Your task to perform on an android device: Open Amazon Image 0: 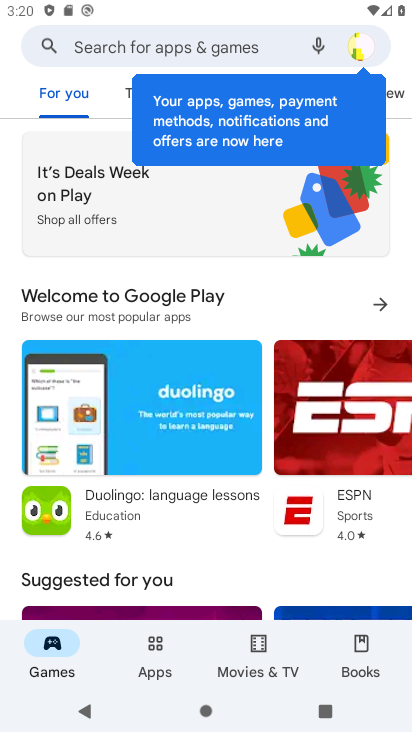
Step 0: press home button
Your task to perform on an android device: Open Amazon Image 1: 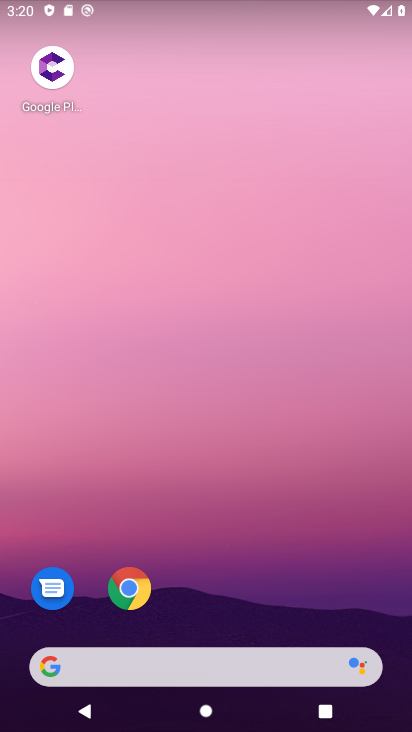
Step 1: click (112, 596)
Your task to perform on an android device: Open Amazon Image 2: 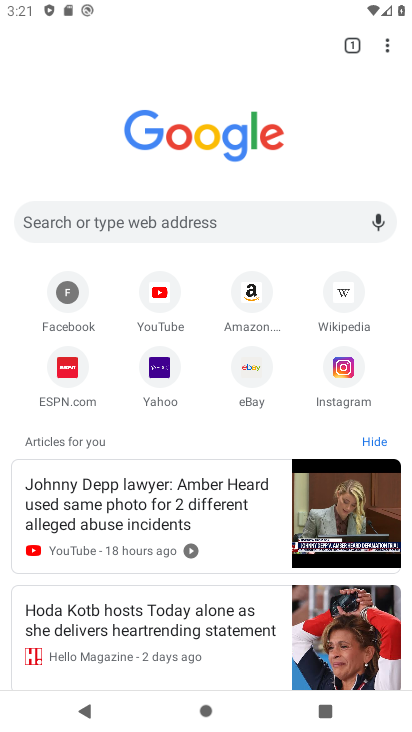
Step 2: click (256, 305)
Your task to perform on an android device: Open Amazon Image 3: 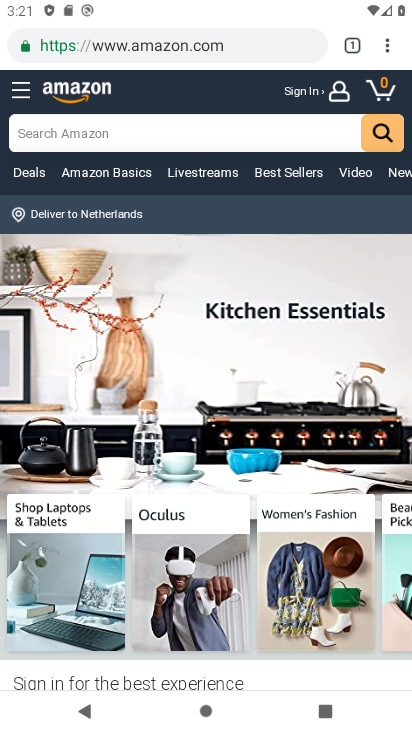
Step 3: task complete